Your task to perform on an android device: Search for vegetarian restaurants on Maps Image 0: 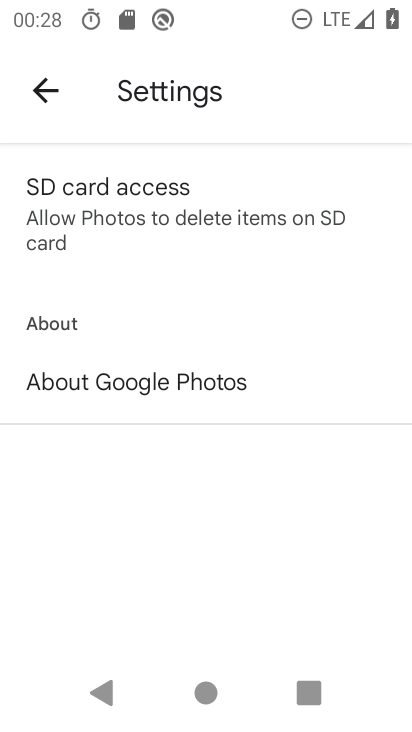
Step 0: press home button
Your task to perform on an android device: Search for vegetarian restaurants on Maps Image 1: 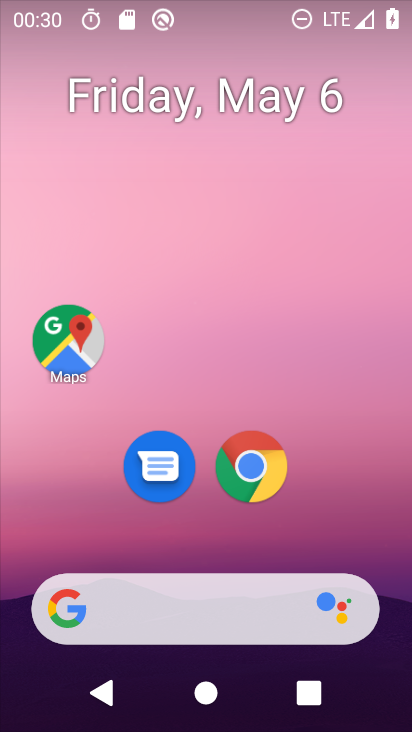
Step 1: click (42, 335)
Your task to perform on an android device: Search for vegetarian restaurants on Maps Image 2: 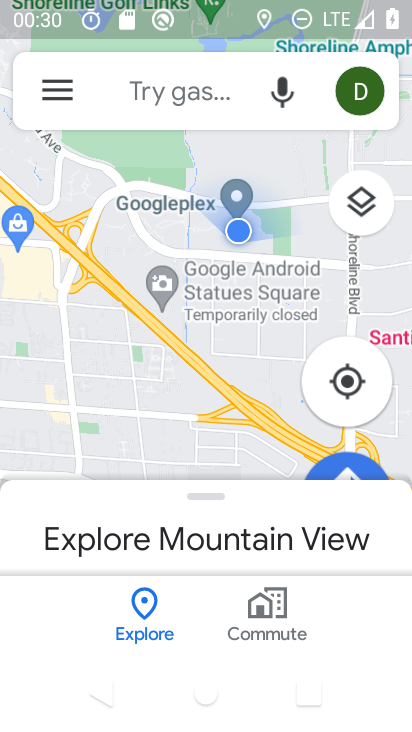
Step 2: click (197, 112)
Your task to perform on an android device: Search for vegetarian restaurants on Maps Image 3: 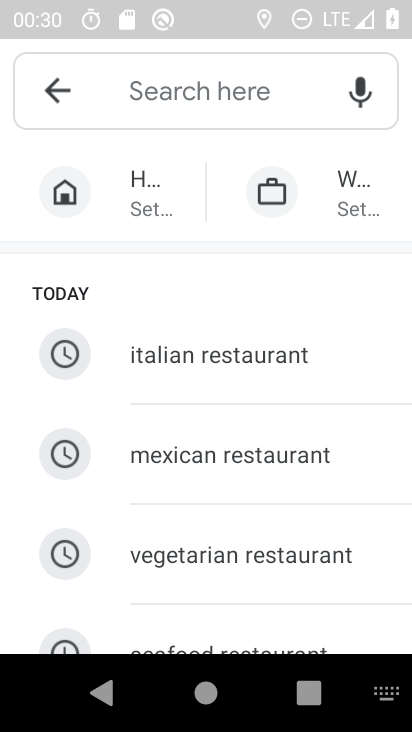
Step 3: click (165, 559)
Your task to perform on an android device: Search for vegetarian restaurants on Maps Image 4: 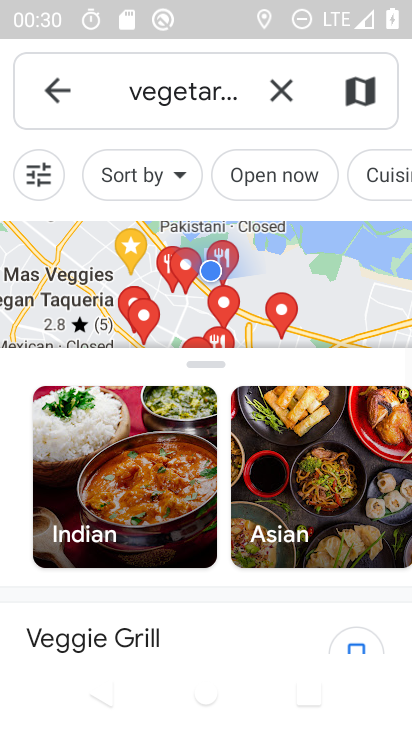
Step 4: task complete